Your task to perform on an android device: move a message to another label in the gmail app Image 0: 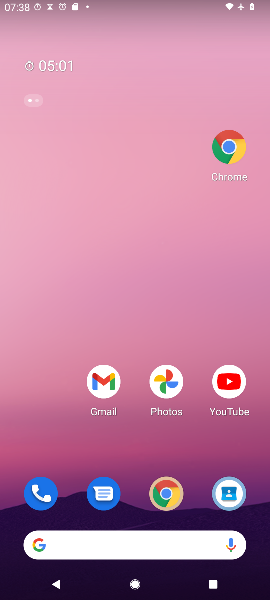
Step 0: drag from (130, 524) to (113, 15)
Your task to perform on an android device: move a message to another label in the gmail app Image 1: 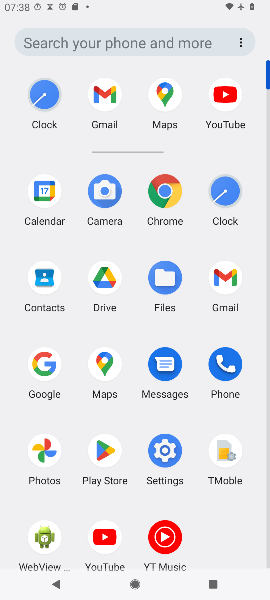
Step 1: click (104, 101)
Your task to perform on an android device: move a message to another label in the gmail app Image 2: 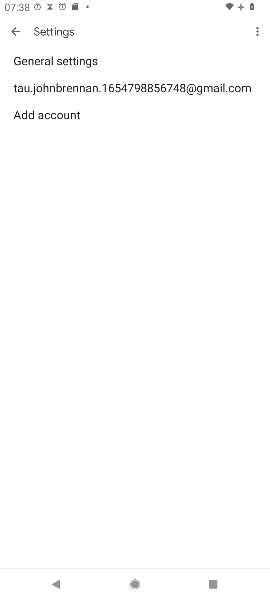
Step 2: press back button
Your task to perform on an android device: move a message to another label in the gmail app Image 3: 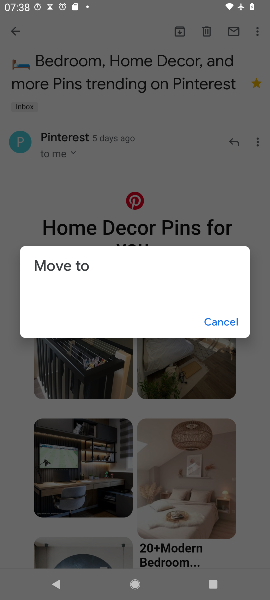
Step 3: click (225, 323)
Your task to perform on an android device: move a message to another label in the gmail app Image 4: 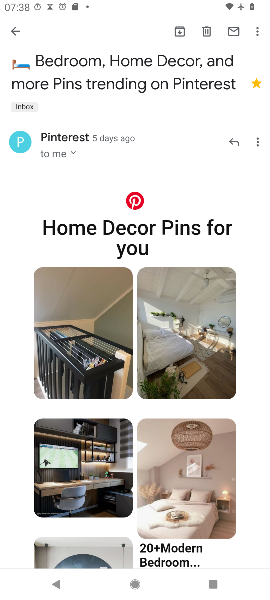
Step 4: press back button
Your task to perform on an android device: move a message to another label in the gmail app Image 5: 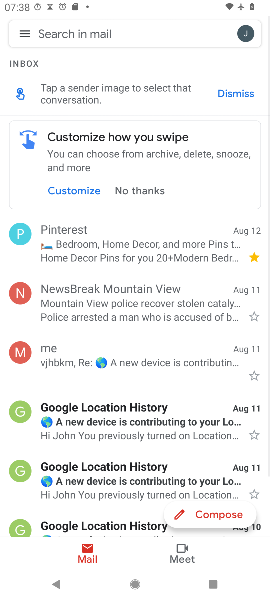
Step 5: click (103, 251)
Your task to perform on an android device: move a message to another label in the gmail app Image 6: 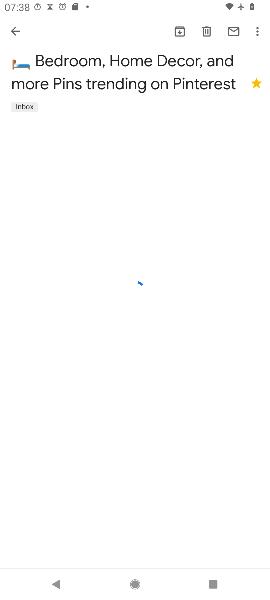
Step 6: click (259, 33)
Your task to perform on an android device: move a message to another label in the gmail app Image 7: 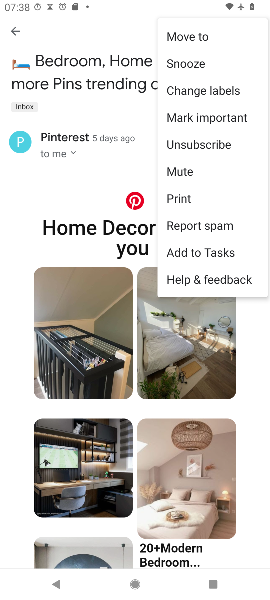
Step 7: click (179, 34)
Your task to perform on an android device: move a message to another label in the gmail app Image 8: 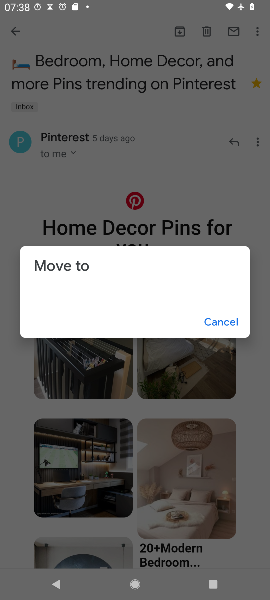
Step 8: task complete